Your task to perform on an android device: Is it going to rain this weekend? Image 0: 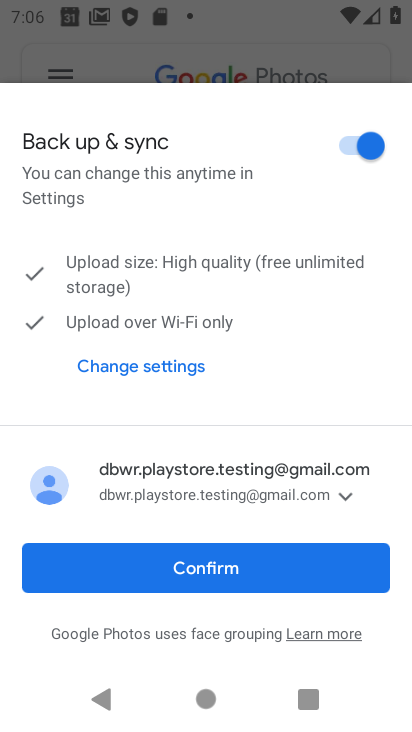
Step 0: press home button
Your task to perform on an android device: Is it going to rain this weekend? Image 1: 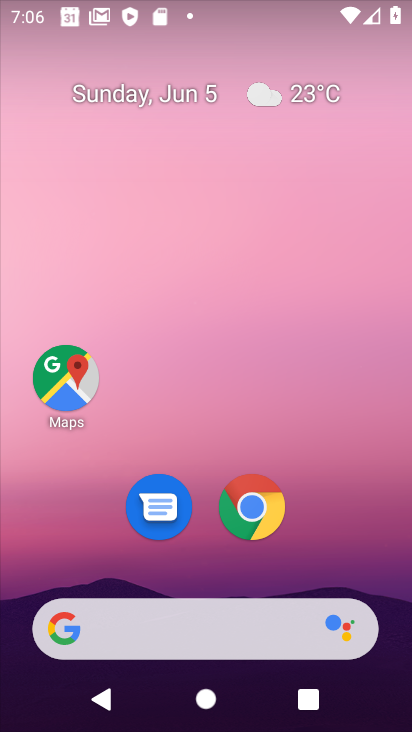
Step 1: drag from (253, 637) to (110, 32)
Your task to perform on an android device: Is it going to rain this weekend? Image 2: 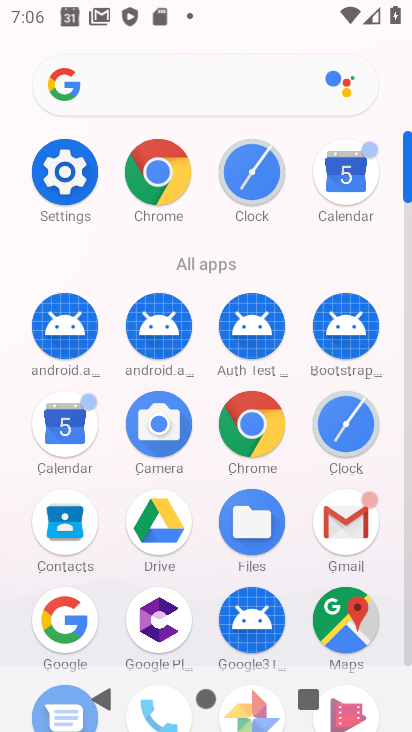
Step 2: click (186, 81)
Your task to perform on an android device: Is it going to rain this weekend? Image 3: 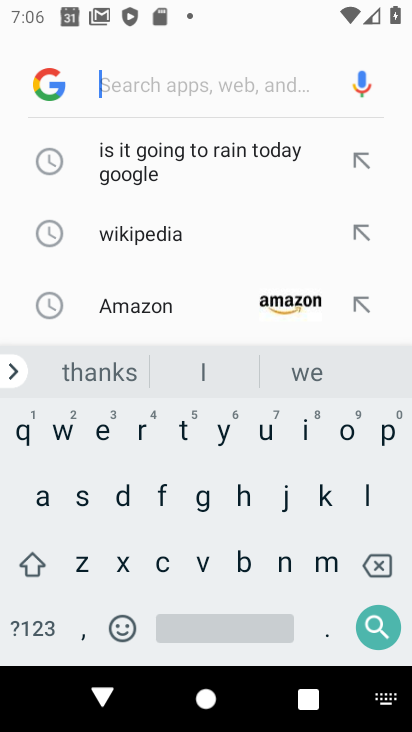
Step 3: click (136, 431)
Your task to perform on an android device: Is it going to rain this weekend? Image 4: 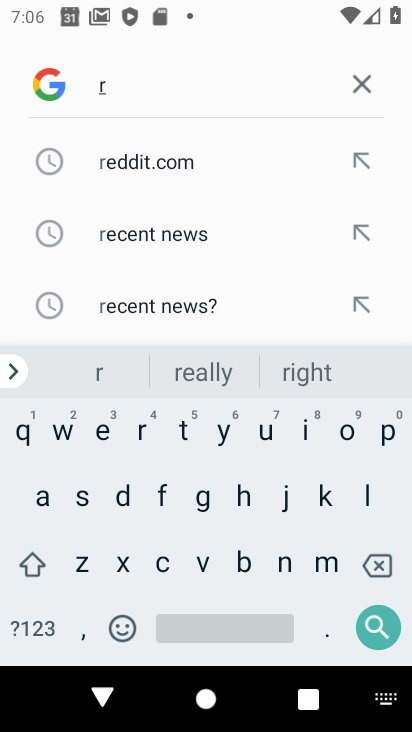
Step 4: click (25, 496)
Your task to perform on an android device: Is it going to rain this weekend? Image 5: 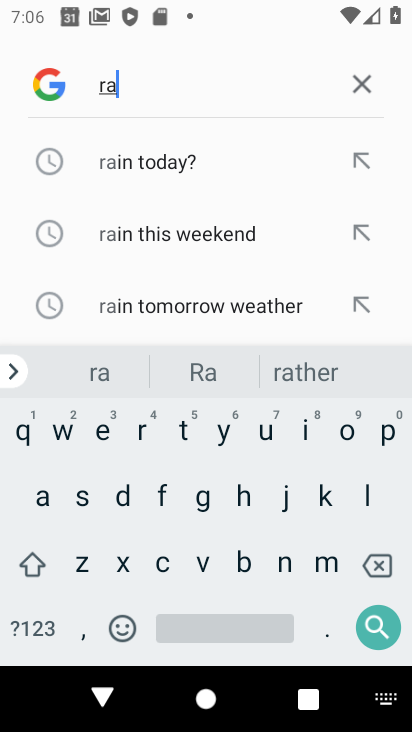
Step 5: click (195, 242)
Your task to perform on an android device: Is it going to rain this weekend? Image 6: 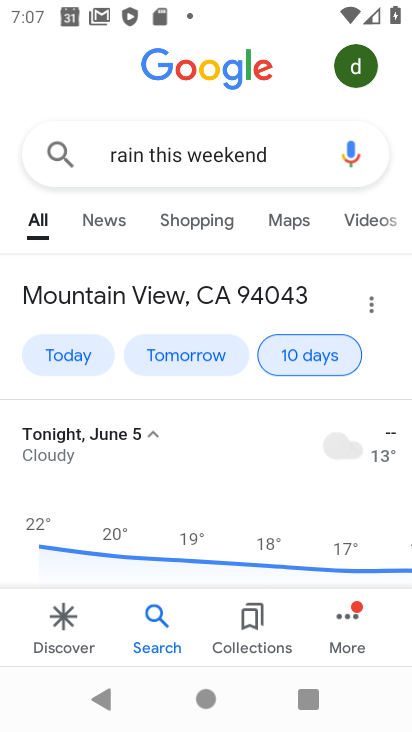
Step 6: task complete